Your task to perform on an android device: Open Yahoo.com Image 0: 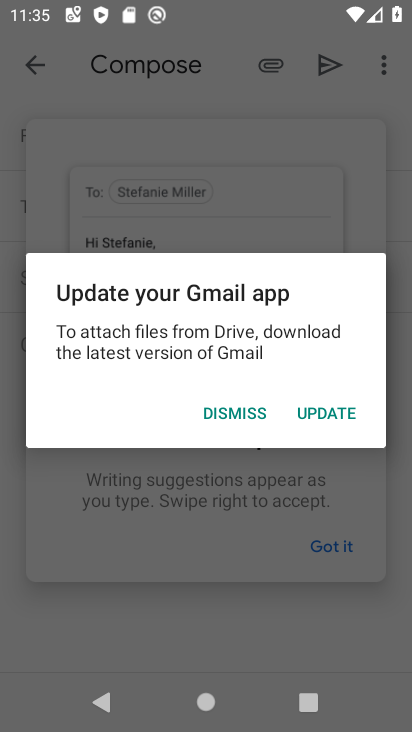
Step 0: press home button
Your task to perform on an android device: Open Yahoo.com Image 1: 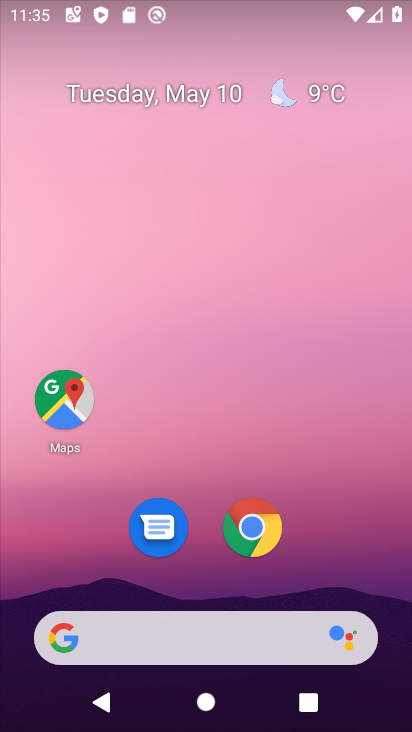
Step 1: click (255, 527)
Your task to perform on an android device: Open Yahoo.com Image 2: 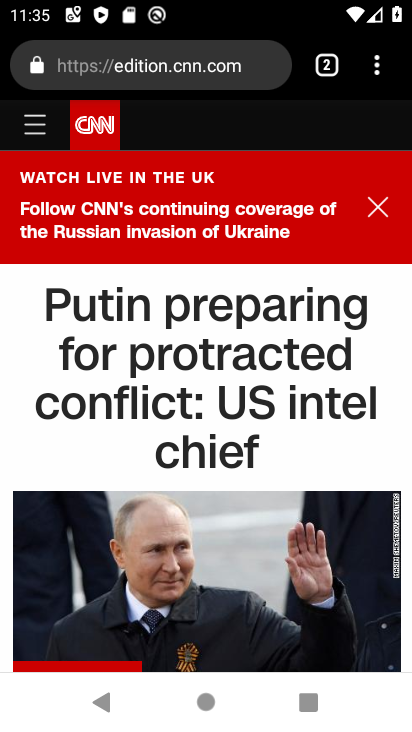
Step 2: click (376, 75)
Your task to perform on an android device: Open Yahoo.com Image 3: 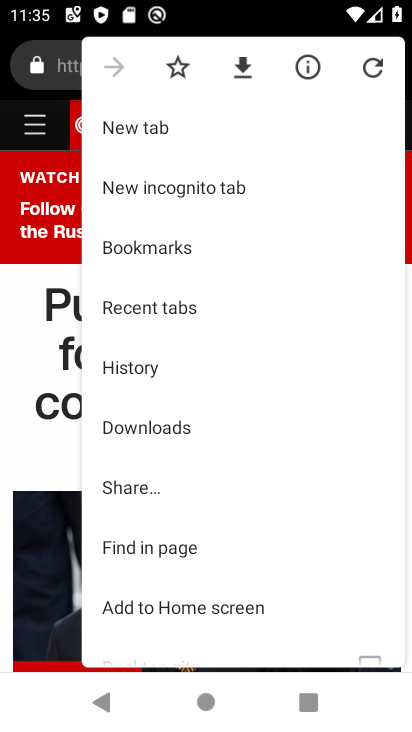
Step 3: click (151, 125)
Your task to perform on an android device: Open Yahoo.com Image 4: 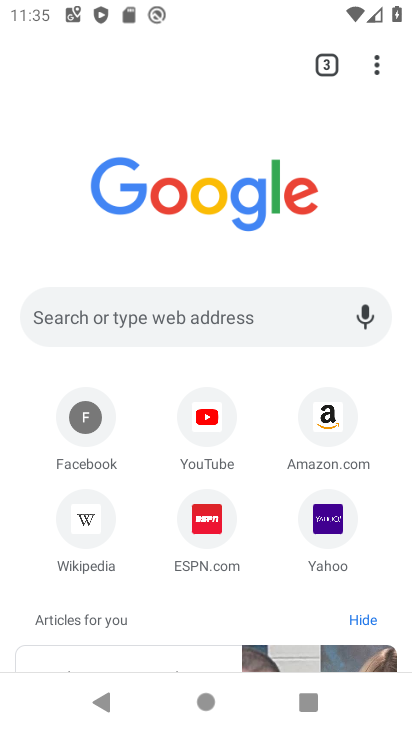
Step 4: click (228, 313)
Your task to perform on an android device: Open Yahoo.com Image 5: 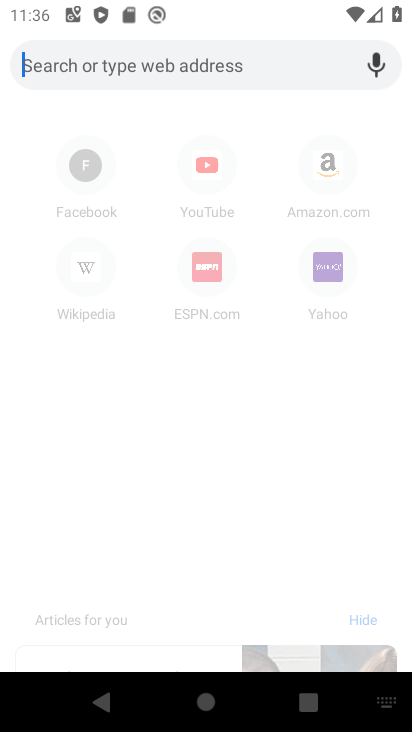
Step 5: type "Yahoo.com"
Your task to perform on an android device: Open Yahoo.com Image 6: 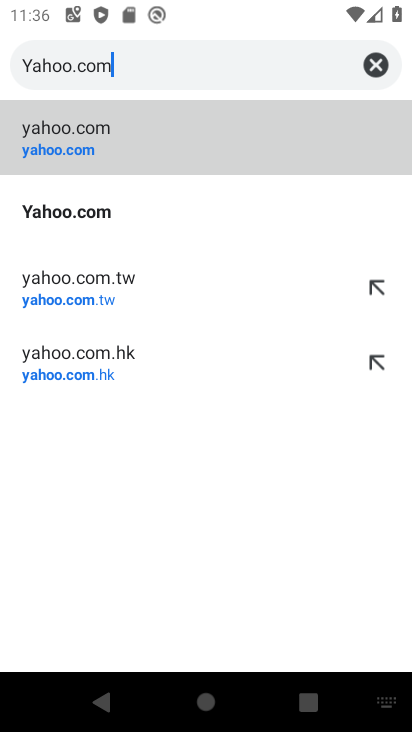
Step 6: click (72, 142)
Your task to perform on an android device: Open Yahoo.com Image 7: 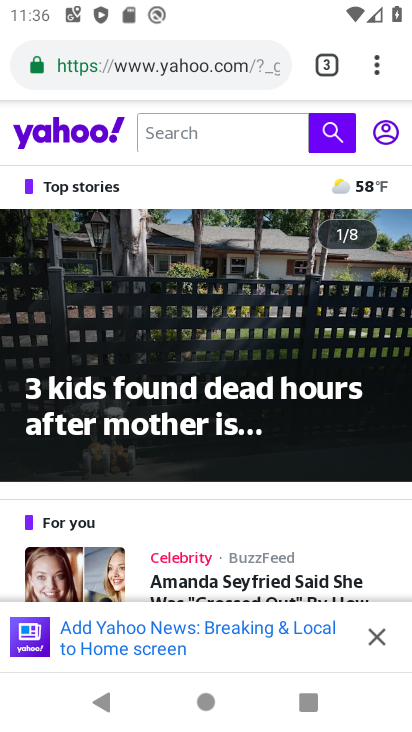
Step 7: task complete